Your task to perform on an android device: Check the news Image 0: 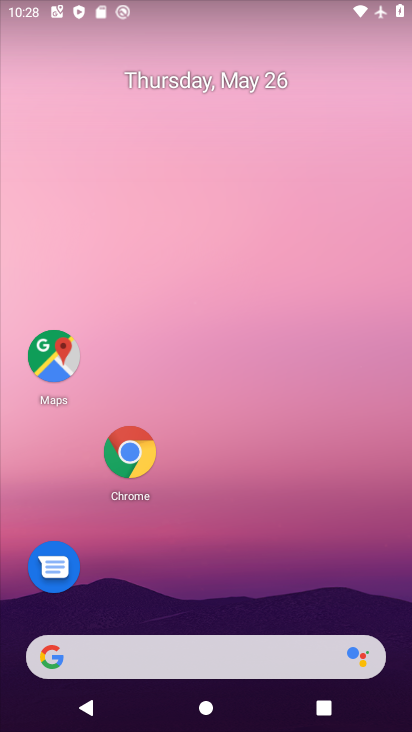
Step 0: click (60, 660)
Your task to perform on an android device: Check the news Image 1: 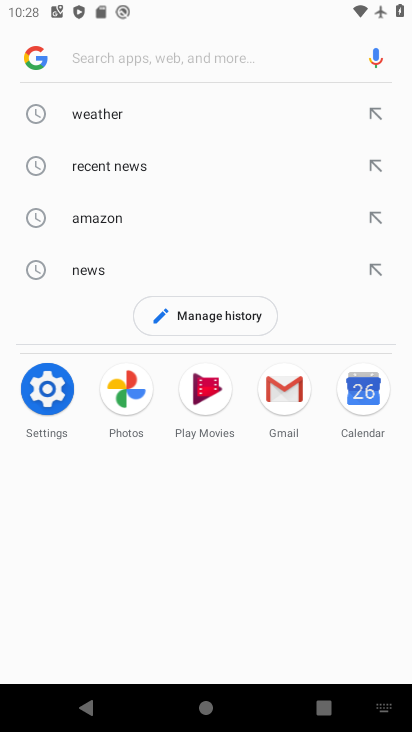
Step 1: click (100, 275)
Your task to perform on an android device: Check the news Image 2: 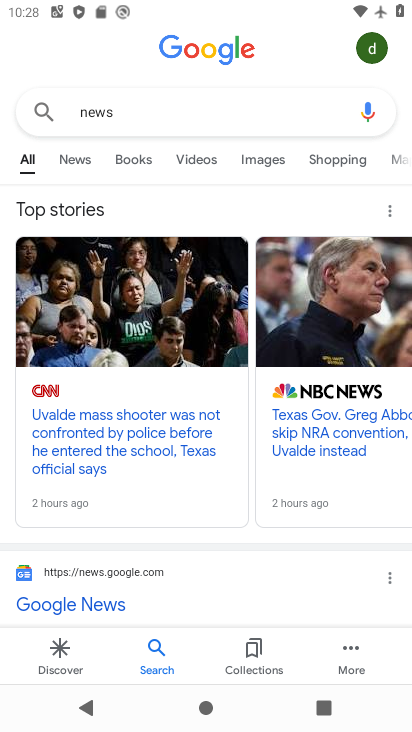
Step 2: click (68, 162)
Your task to perform on an android device: Check the news Image 3: 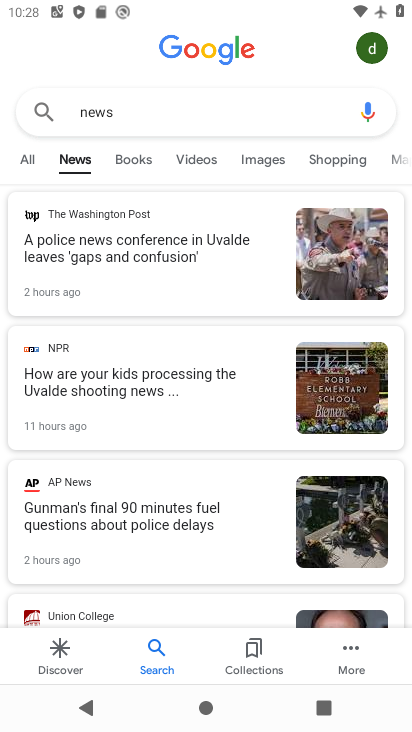
Step 3: task complete